Your task to perform on an android device: turn off wifi Image 0: 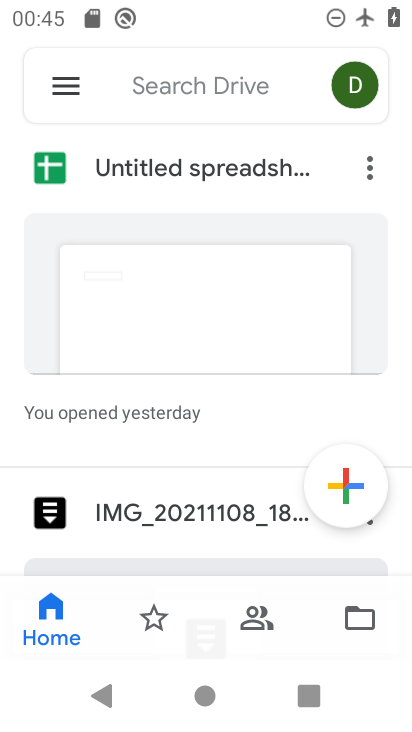
Step 0: press home button
Your task to perform on an android device: turn off wifi Image 1: 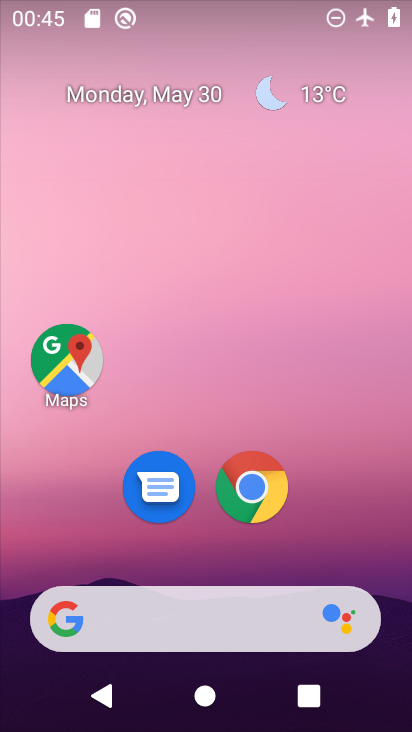
Step 1: drag from (383, 606) to (367, 278)
Your task to perform on an android device: turn off wifi Image 2: 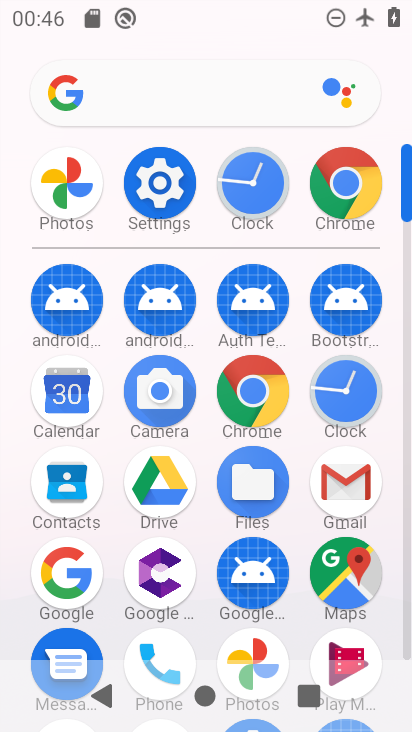
Step 2: click (165, 186)
Your task to perform on an android device: turn off wifi Image 3: 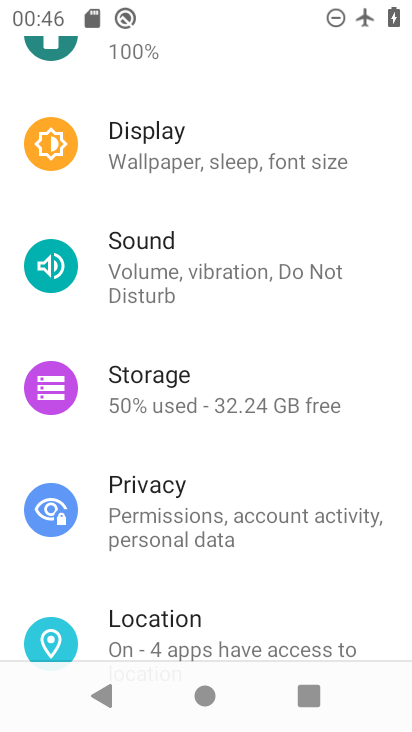
Step 3: drag from (338, 159) to (337, 565)
Your task to perform on an android device: turn off wifi Image 4: 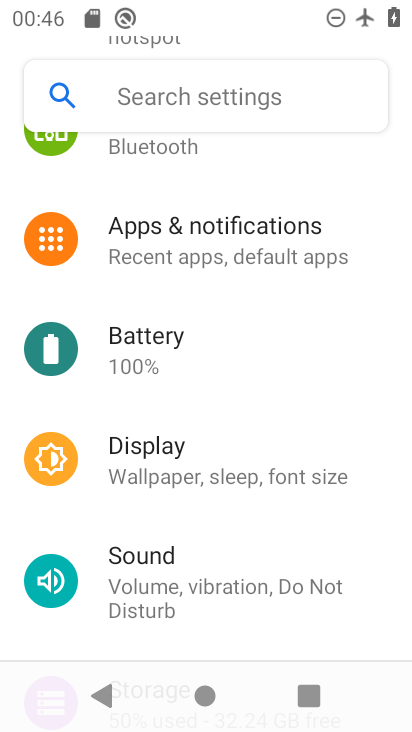
Step 4: drag from (286, 174) to (320, 575)
Your task to perform on an android device: turn off wifi Image 5: 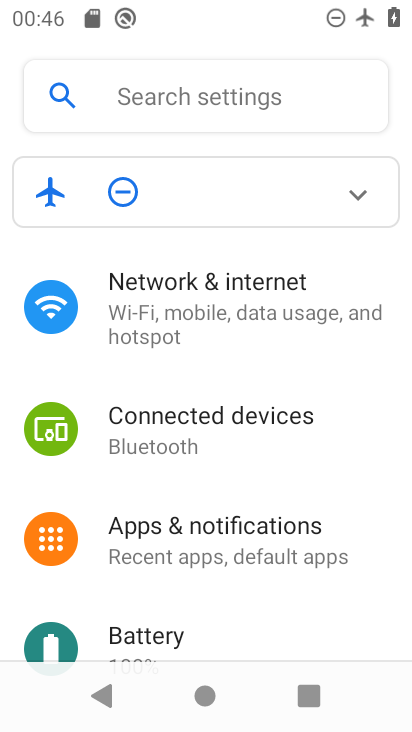
Step 5: click (215, 282)
Your task to perform on an android device: turn off wifi Image 6: 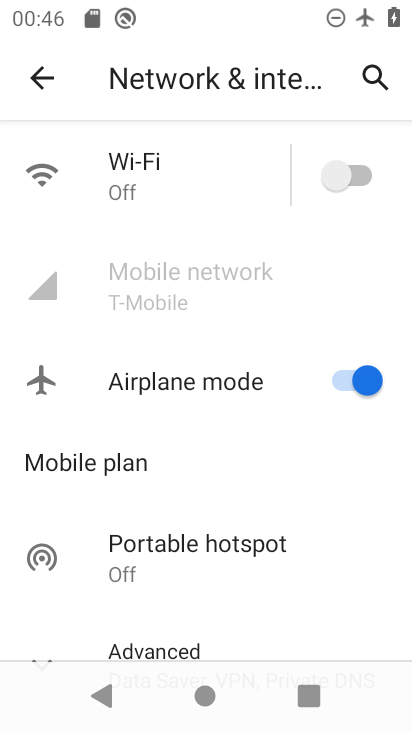
Step 6: click (353, 174)
Your task to perform on an android device: turn off wifi Image 7: 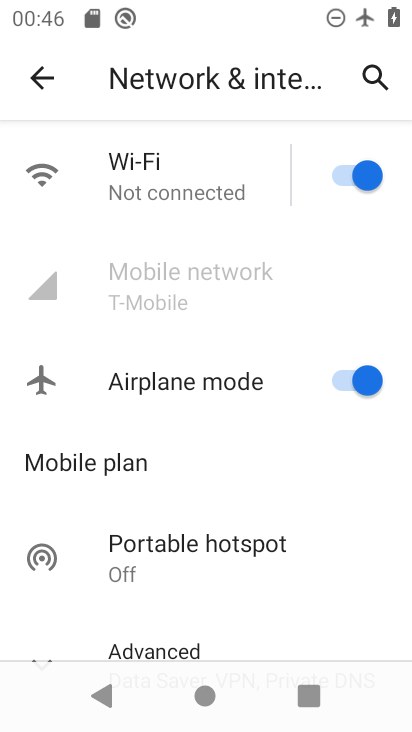
Step 7: click (342, 176)
Your task to perform on an android device: turn off wifi Image 8: 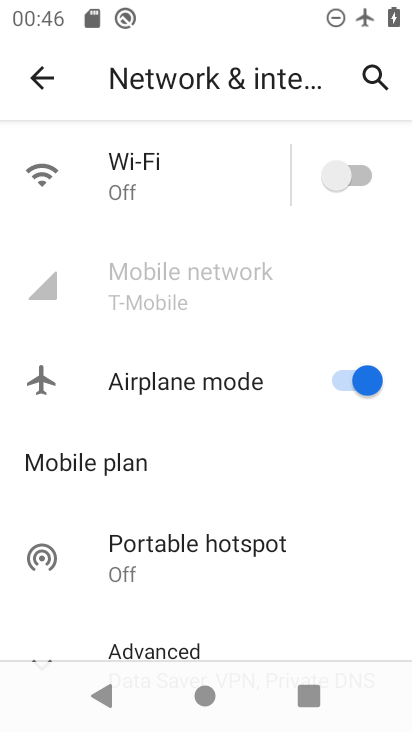
Step 8: task complete